Your task to perform on an android device: Empty the shopping cart on walmart.com. Add "bose soundlink" to the cart on walmart.com, then select checkout. Image 0: 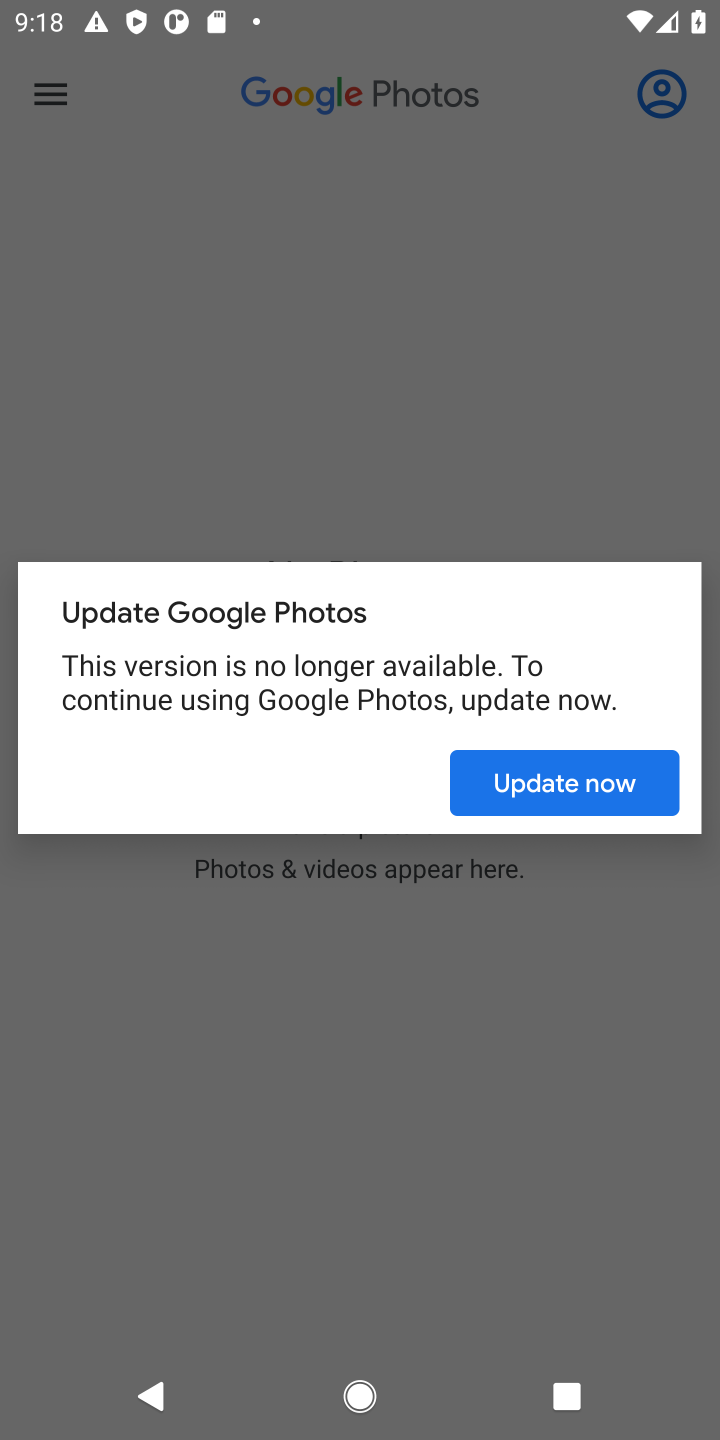
Step 0: press home button
Your task to perform on an android device: Empty the shopping cart on walmart.com. Add "bose soundlink" to the cart on walmart.com, then select checkout. Image 1: 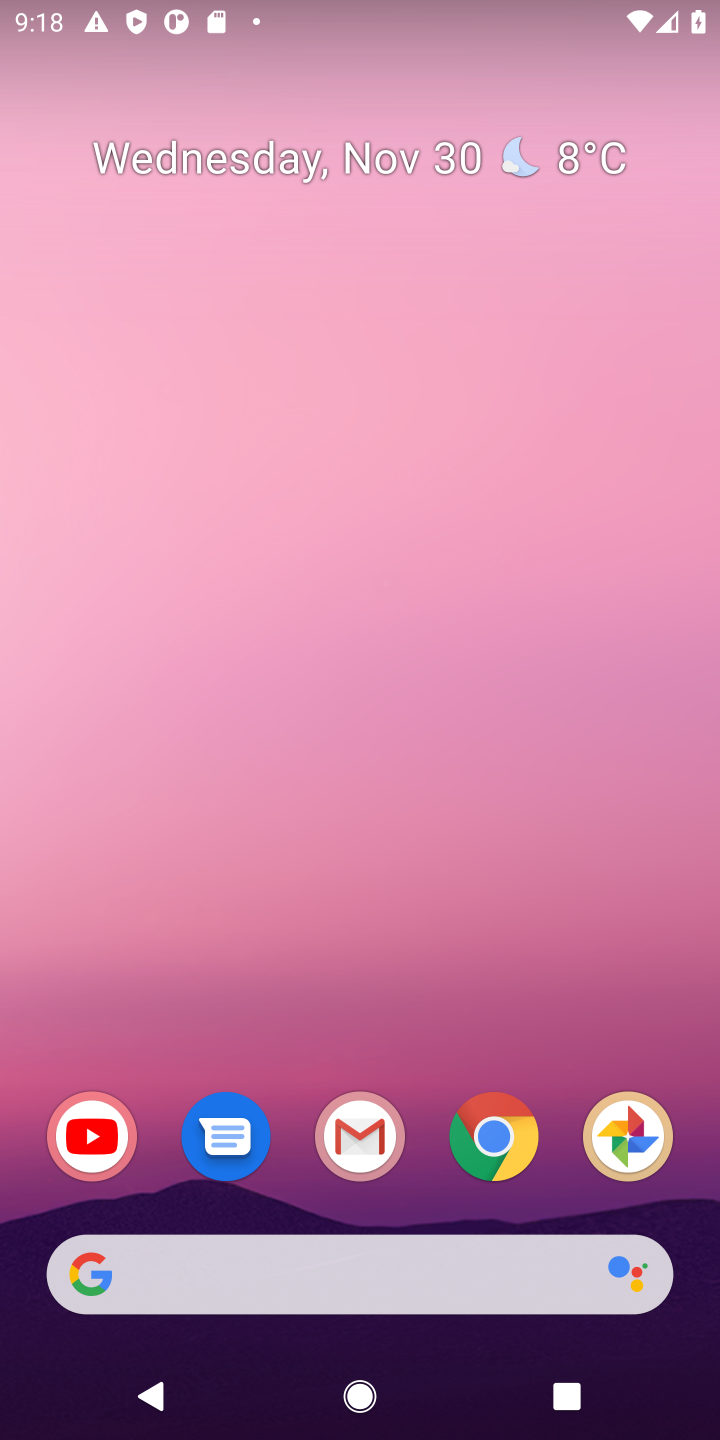
Step 1: click (512, 1127)
Your task to perform on an android device: Empty the shopping cart on walmart.com. Add "bose soundlink" to the cart on walmart.com, then select checkout. Image 2: 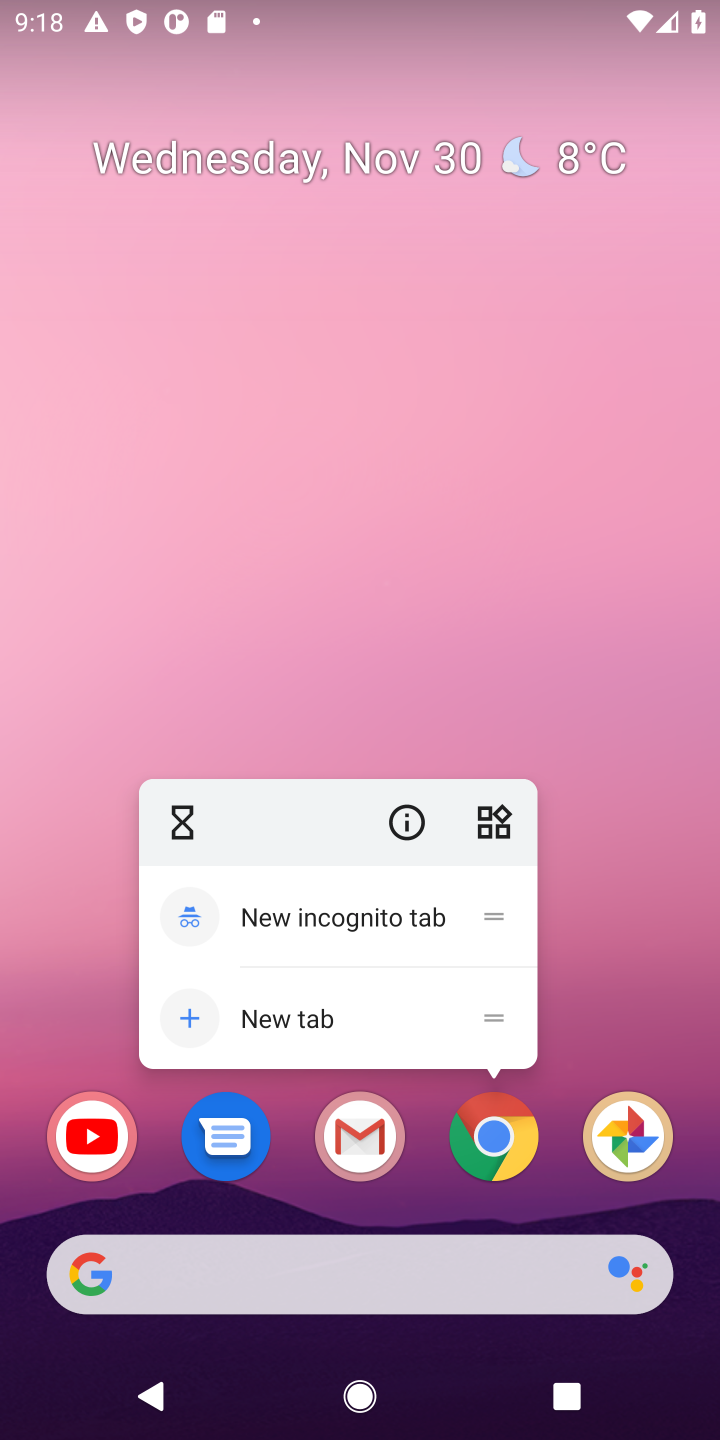
Step 2: click (499, 1140)
Your task to perform on an android device: Empty the shopping cart on walmart.com. Add "bose soundlink" to the cart on walmart.com, then select checkout. Image 3: 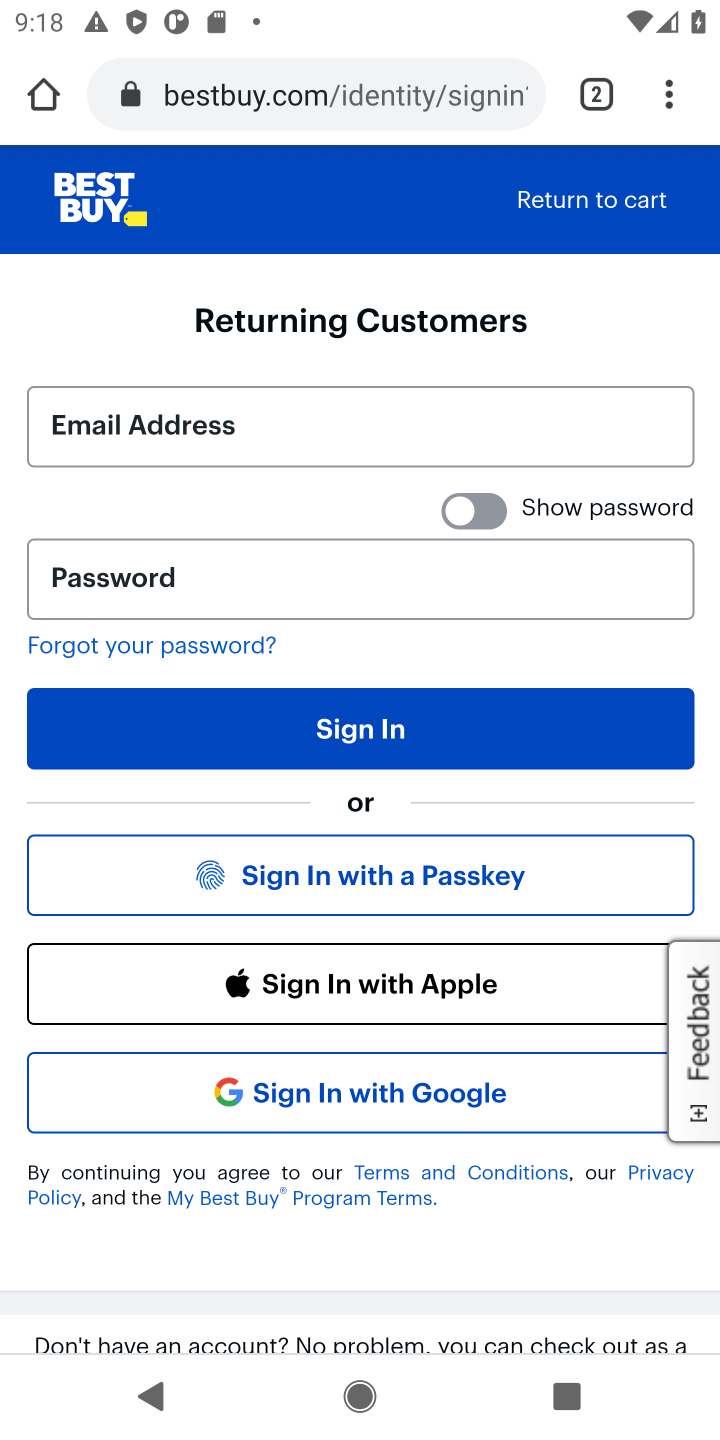
Step 3: click (272, 99)
Your task to perform on an android device: Empty the shopping cart on walmart.com. Add "bose soundlink" to the cart on walmart.com, then select checkout. Image 4: 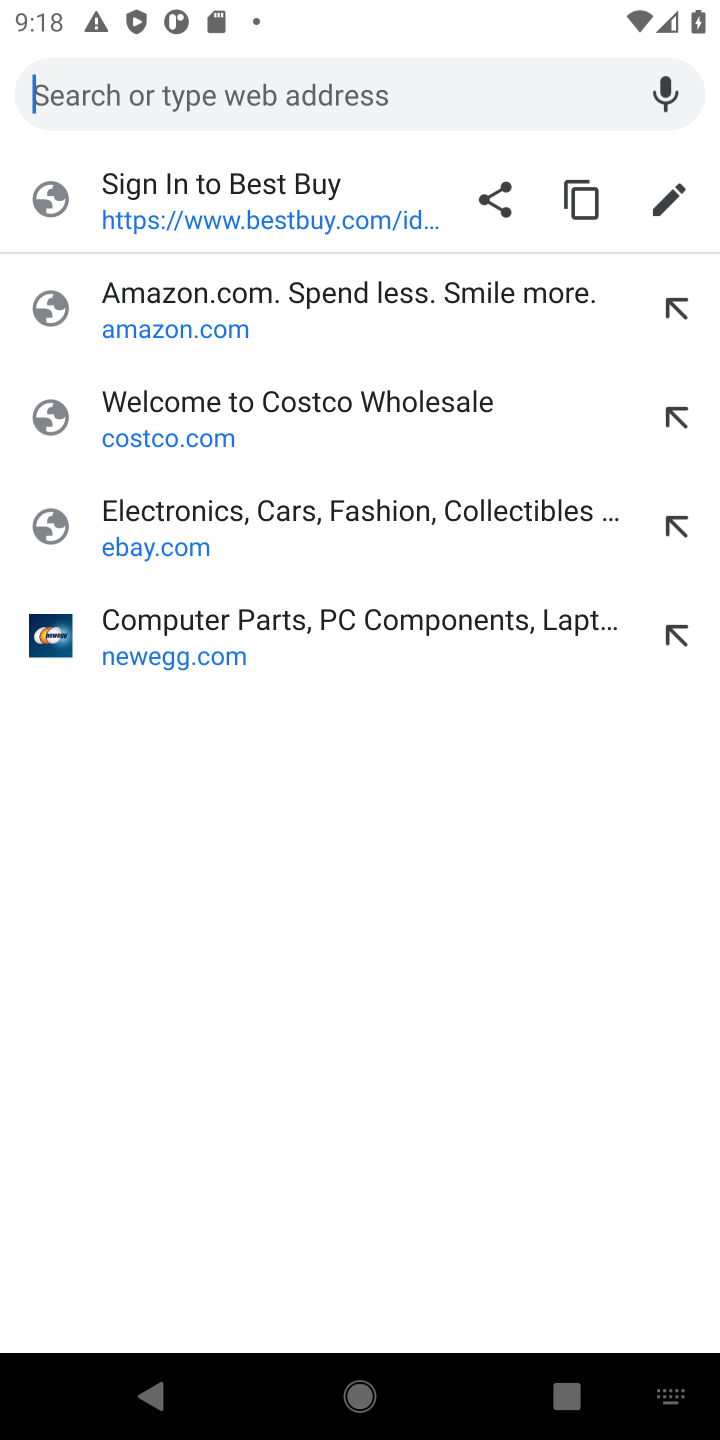
Step 4: type "walmart.com"
Your task to perform on an android device: Empty the shopping cart on walmart.com. Add "bose soundlink" to the cart on walmart.com, then select checkout. Image 5: 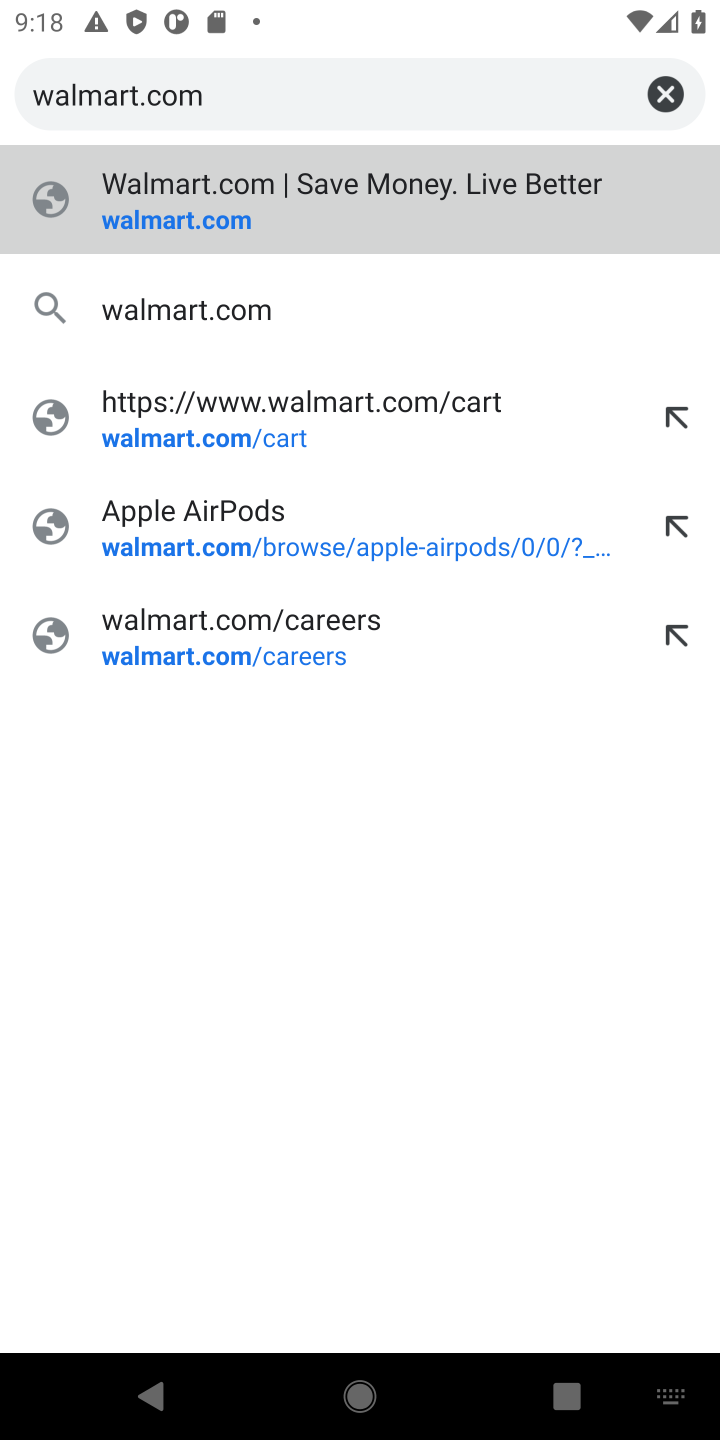
Step 5: click (166, 228)
Your task to perform on an android device: Empty the shopping cart on walmart.com. Add "bose soundlink" to the cart on walmart.com, then select checkout. Image 6: 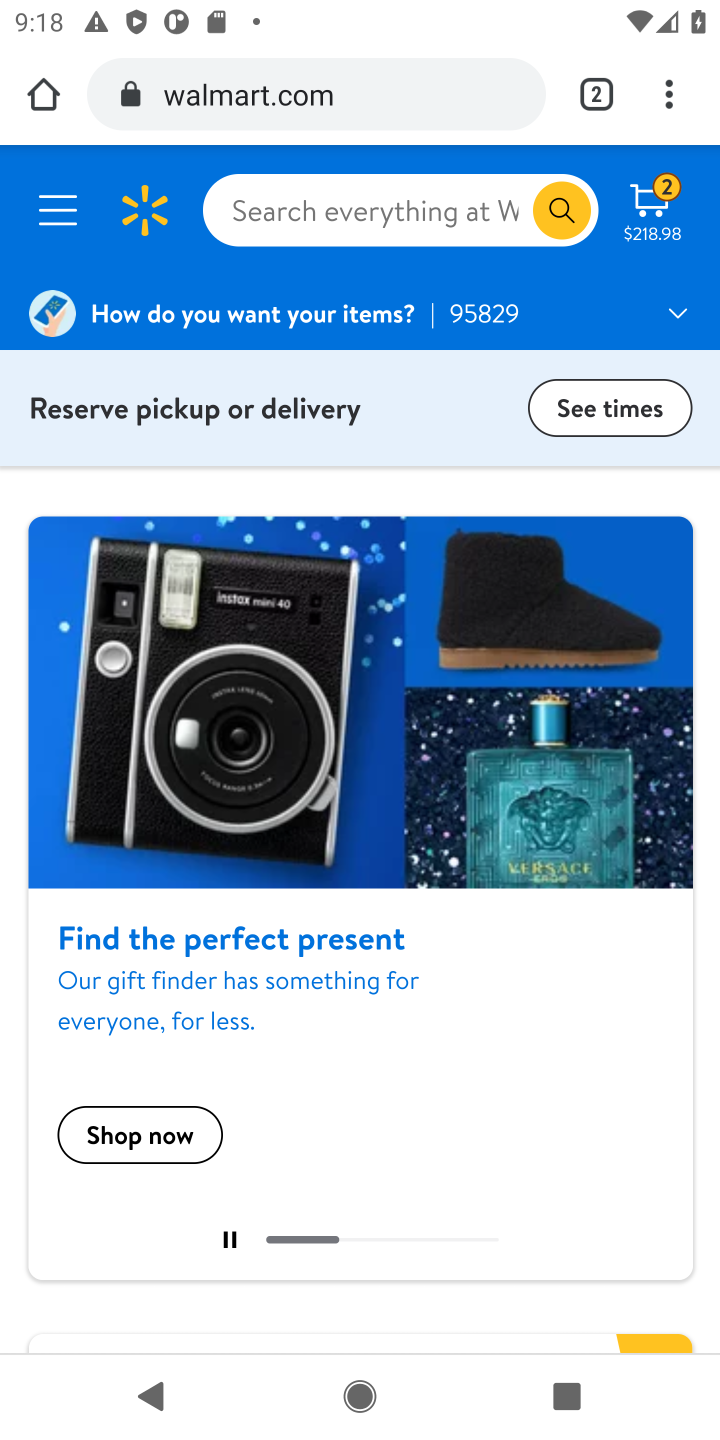
Step 6: click (633, 219)
Your task to perform on an android device: Empty the shopping cart on walmart.com. Add "bose soundlink" to the cart on walmart.com, then select checkout. Image 7: 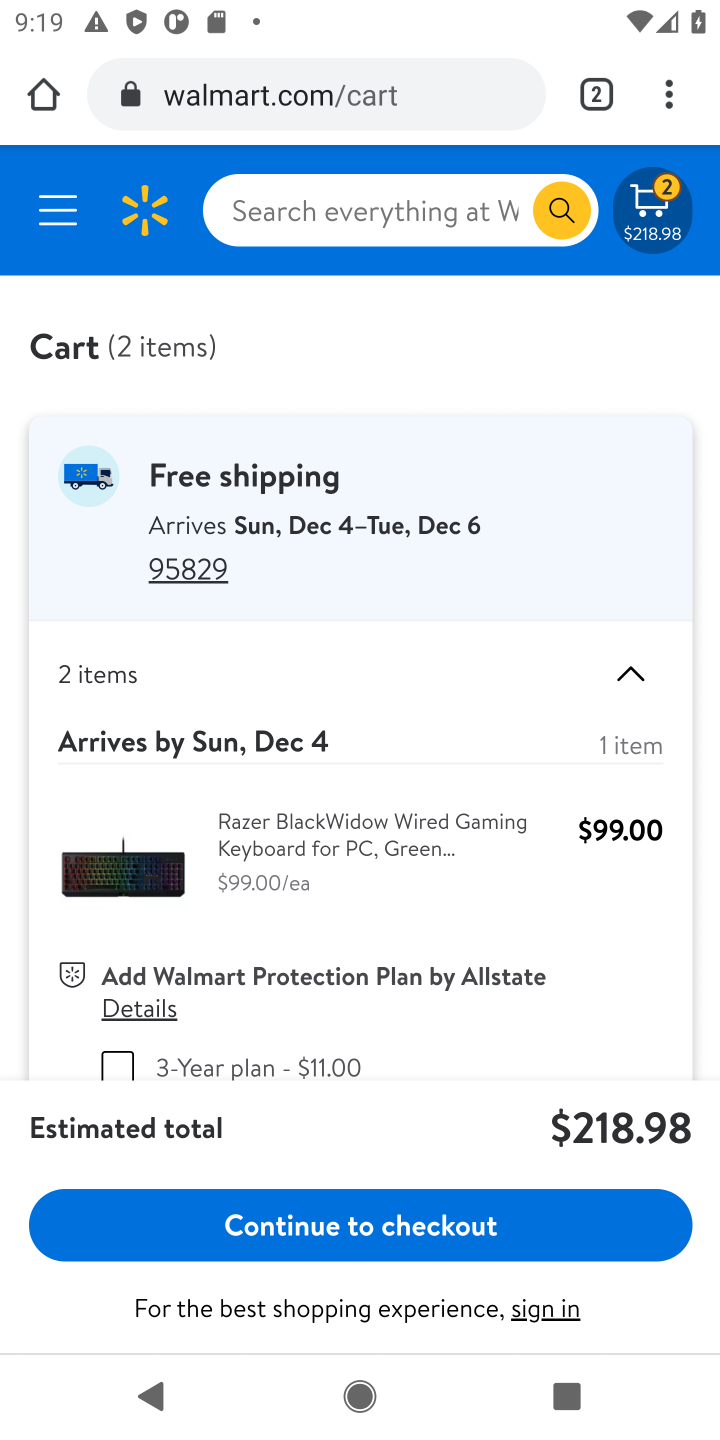
Step 7: drag from (470, 868) to (540, 409)
Your task to perform on an android device: Empty the shopping cart on walmart.com. Add "bose soundlink" to the cart on walmart.com, then select checkout. Image 8: 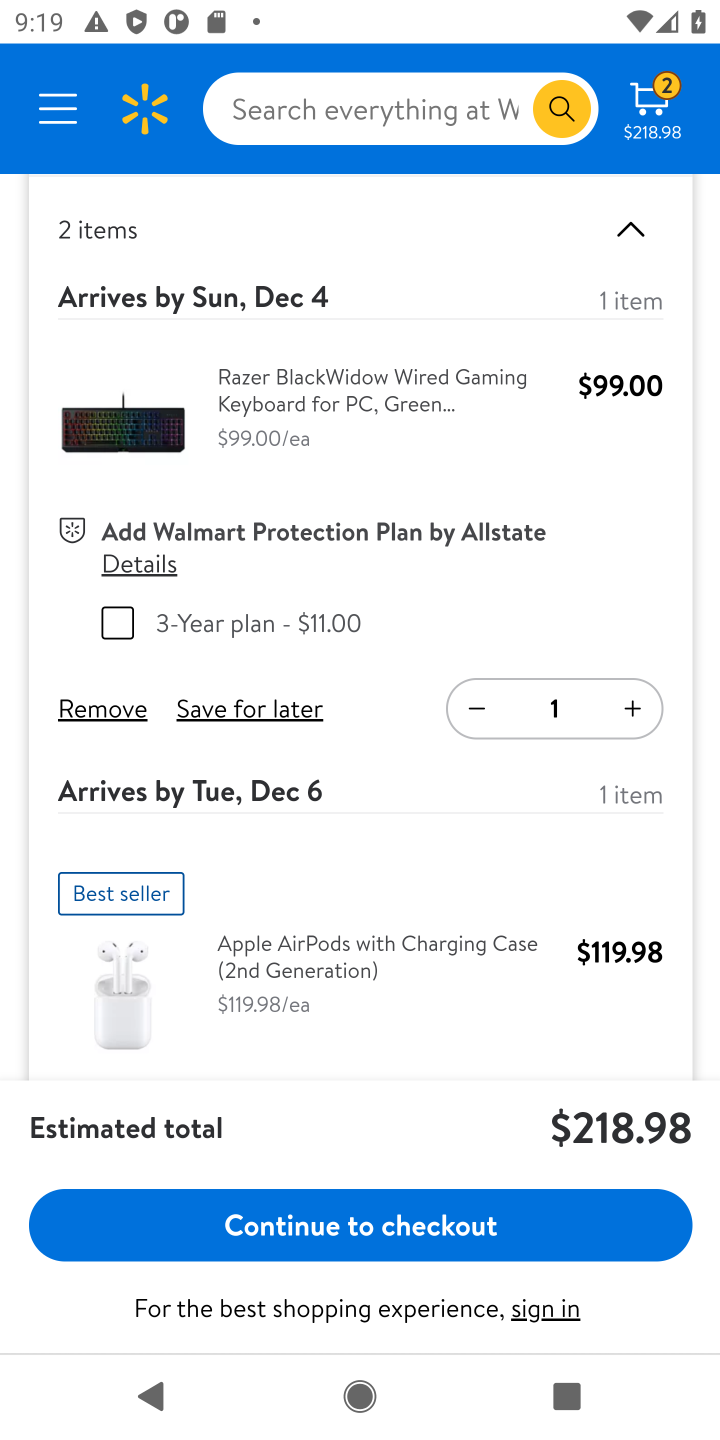
Step 8: click (75, 712)
Your task to perform on an android device: Empty the shopping cart on walmart.com. Add "bose soundlink" to the cart on walmart.com, then select checkout. Image 9: 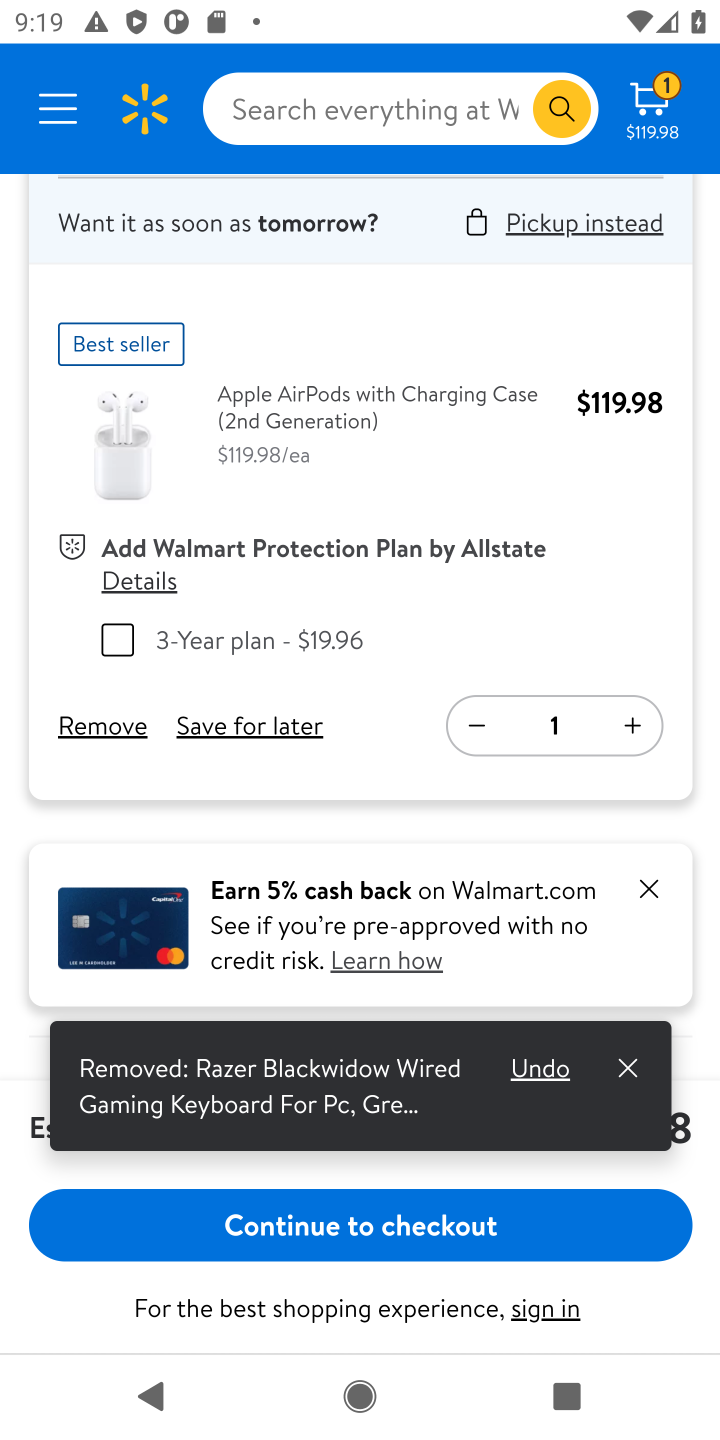
Step 9: click (75, 712)
Your task to perform on an android device: Empty the shopping cart on walmart.com. Add "bose soundlink" to the cart on walmart.com, then select checkout. Image 10: 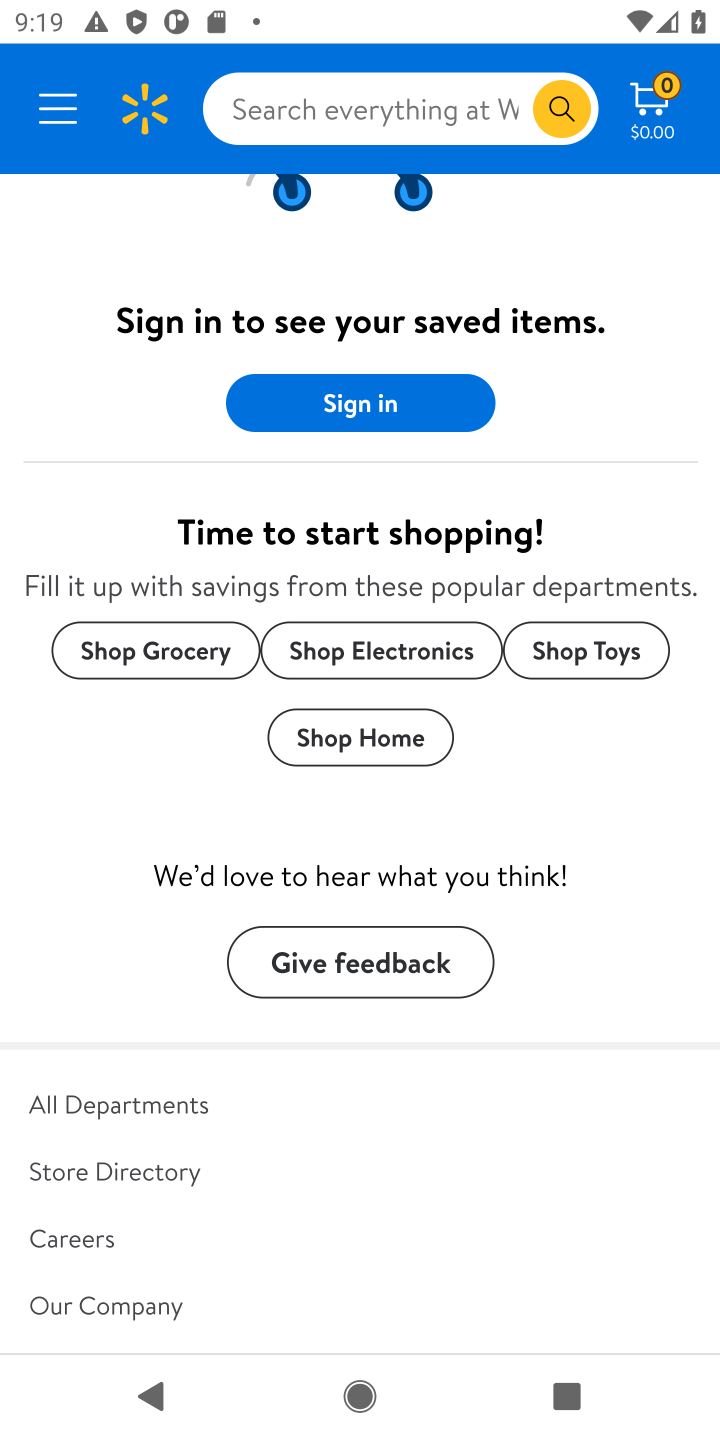
Step 10: click (308, 109)
Your task to perform on an android device: Empty the shopping cart on walmart.com. Add "bose soundlink" to the cart on walmart.com, then select checkout. Image 11: 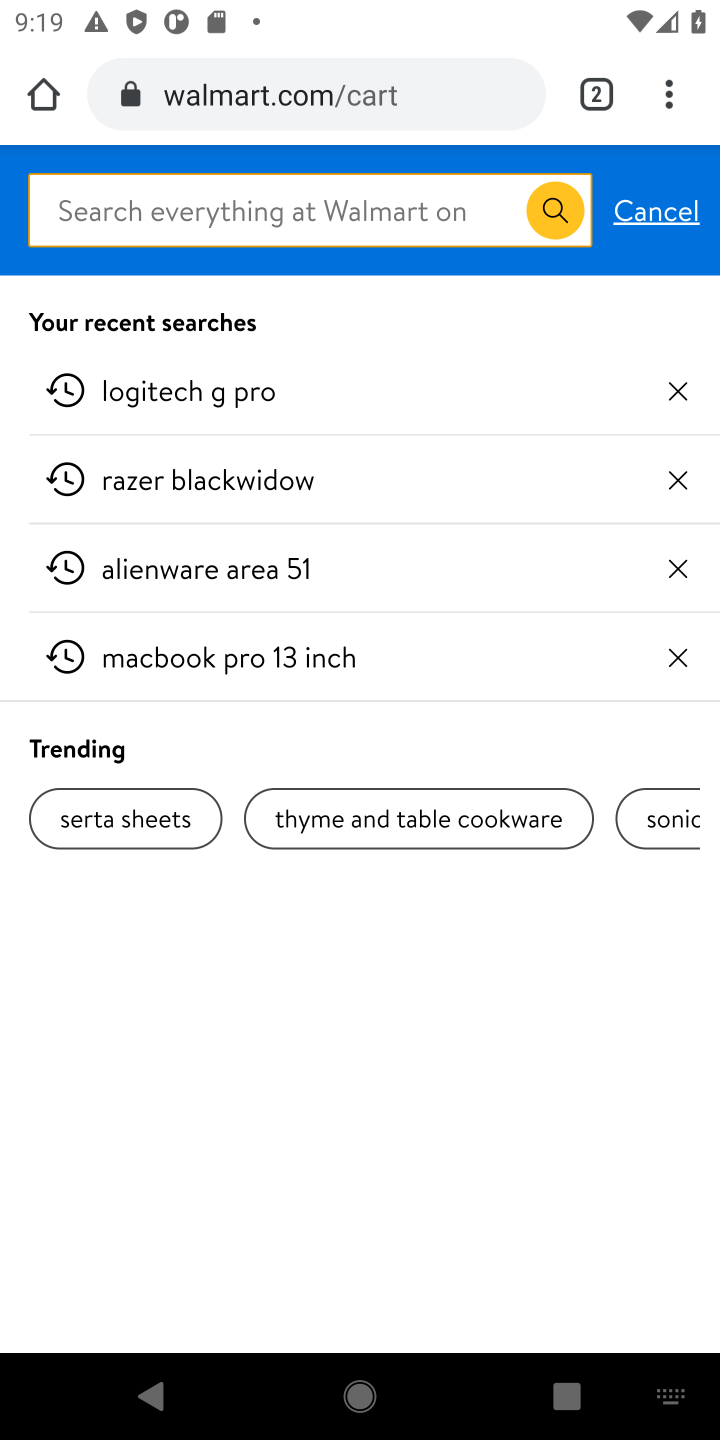
Step 11: type "bose soundlink"
Your task to perform on an android device: Empty the shopping cart on walmart.com. Add "bose soundlink" to the cart on walmart.com, then select checkout. Image 12: 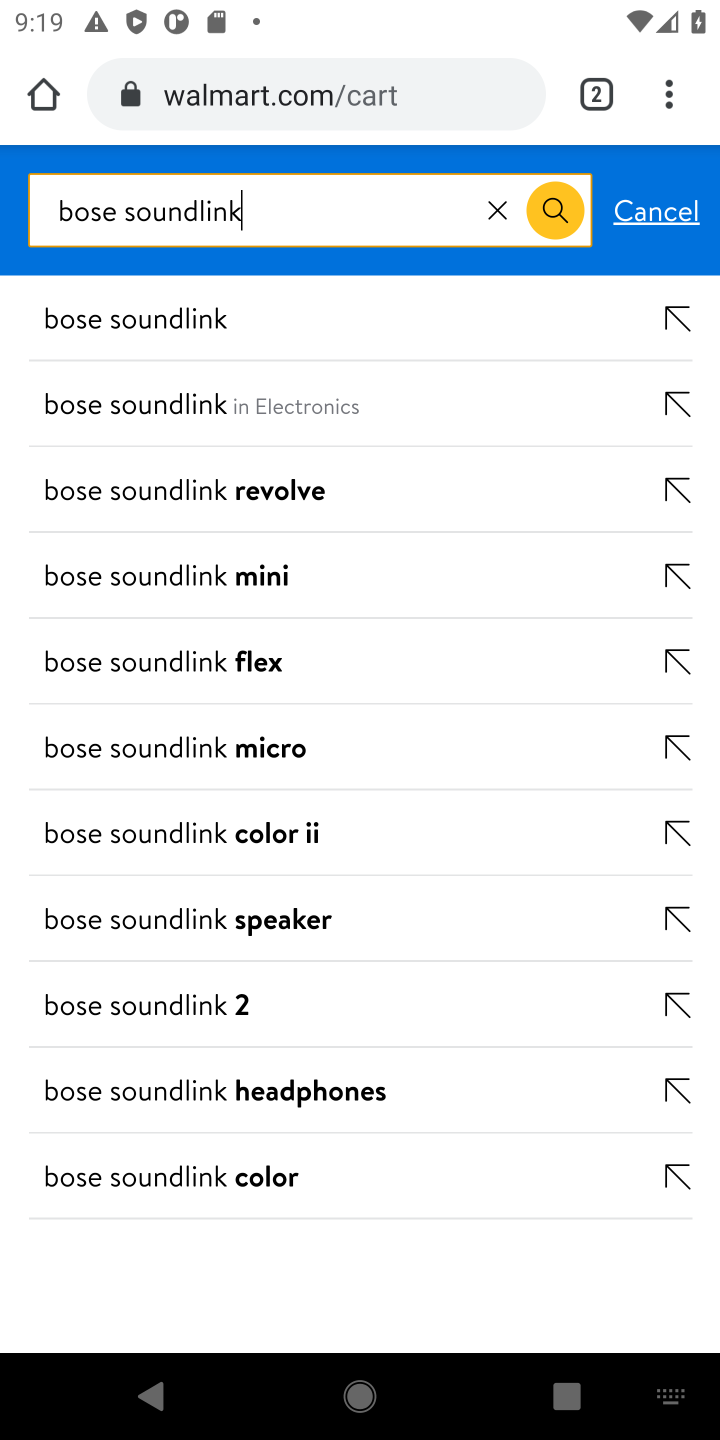
Step 12: click (167, 330)
Your task to perform on an android device: Empty the shopping cart on walmart.com. Add "bose soundlink" to the cart on walmart.com, then select checkout. Image 13: 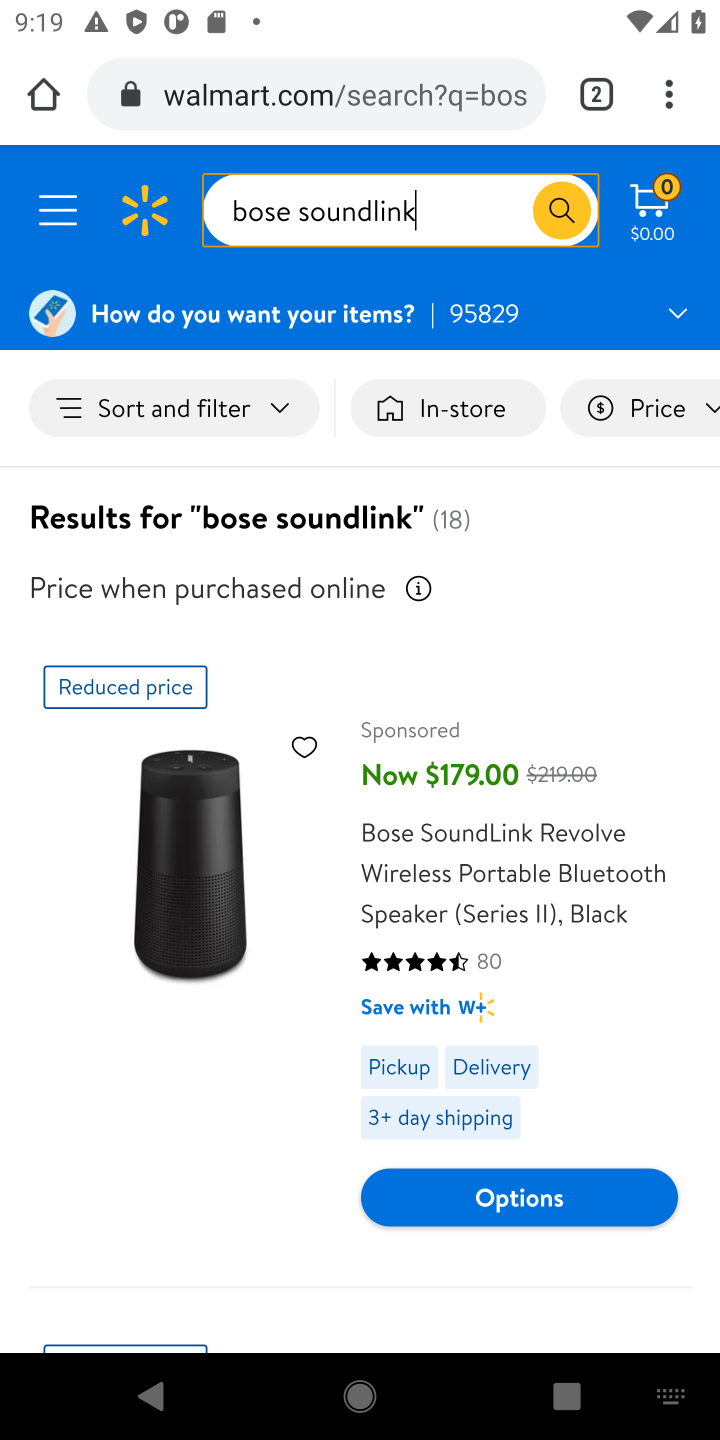
Step 13: click (454, 893)
Your task to perform on an android device: Empty the shopping cart on walmart.com. Add "bose soundlink" to the cart on walmart.com, then select checkout. Image 14: 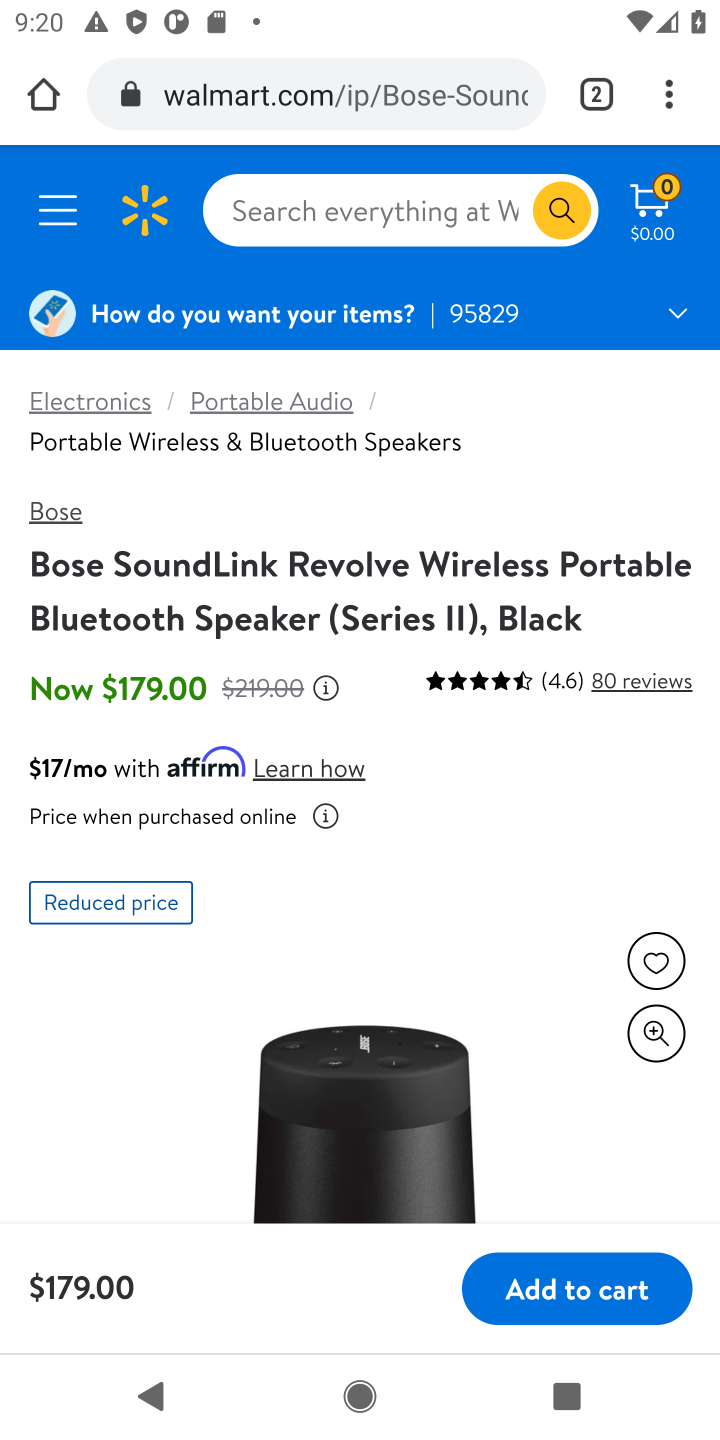
Step 14: click (593, 1296)
Your task to perform on an android device: Empty the shopping cart on walmart.com. Add "bose soundlink" to the cart on walmart.com, then select checkout. Image 15: 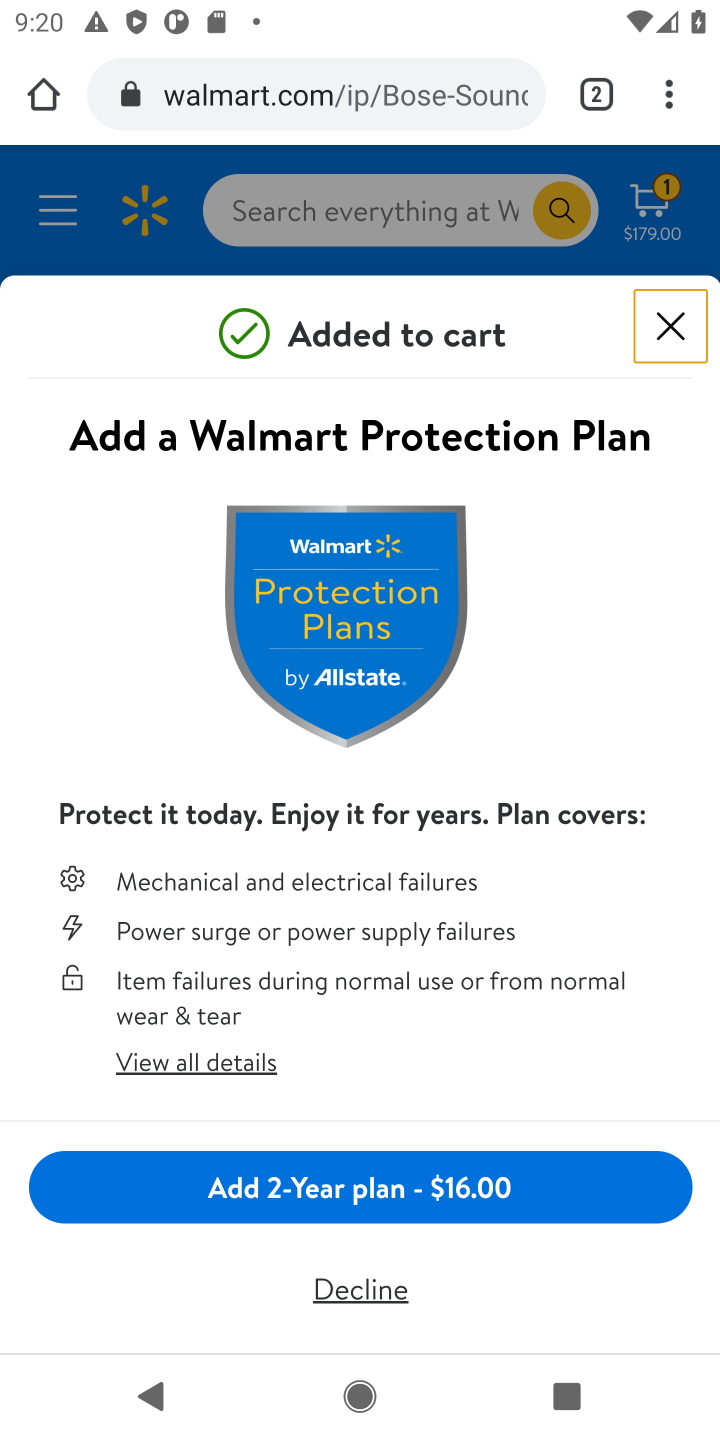
Step 15: click (680, 328)
Your task to perform on an android device: Empty the shopping cart on walmart.com. Add "bose soundlink" to the cart on walmart.com, then select checkout. Image 16: 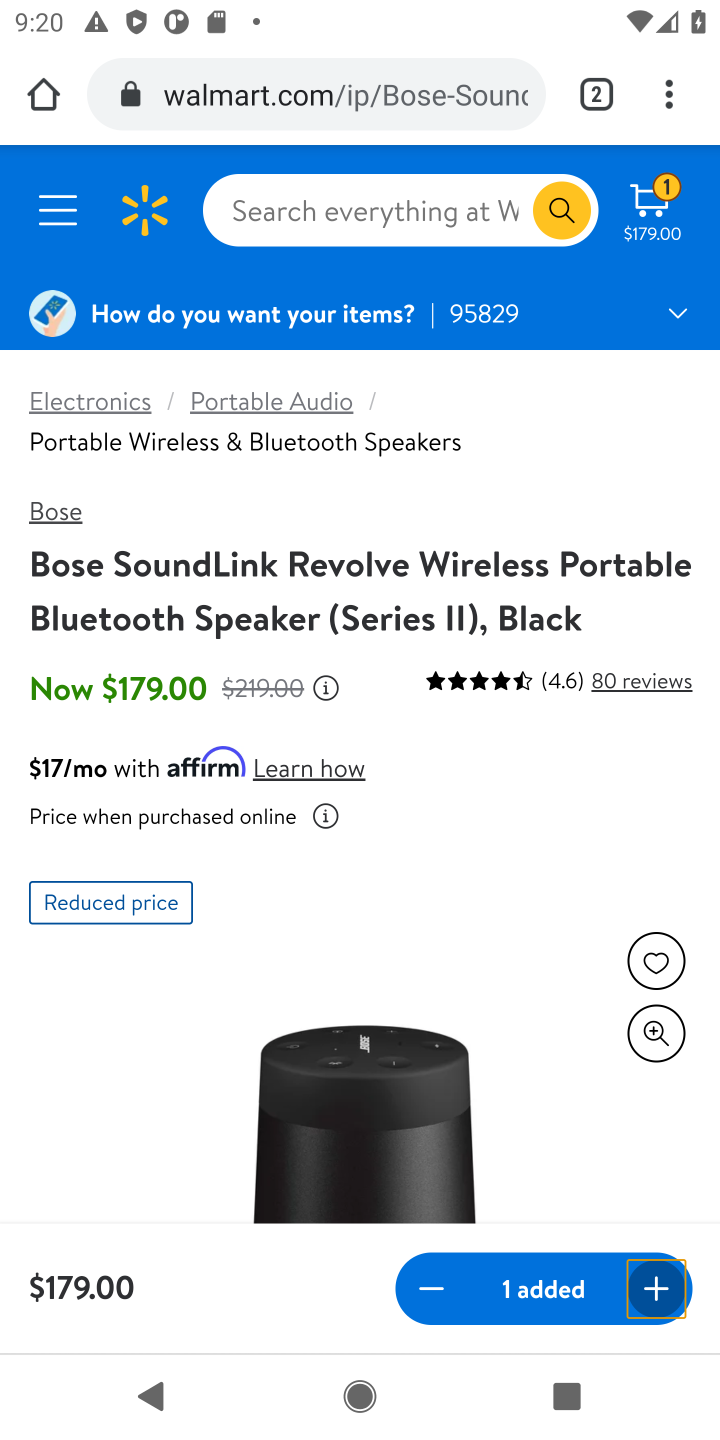
Step 16: click (649, 221)
Your task to perform on an android device: Empty the shopping cart on walmart.com. Add "bose soundlink" to the cart on walmart.com, then select checkout. Image 17: 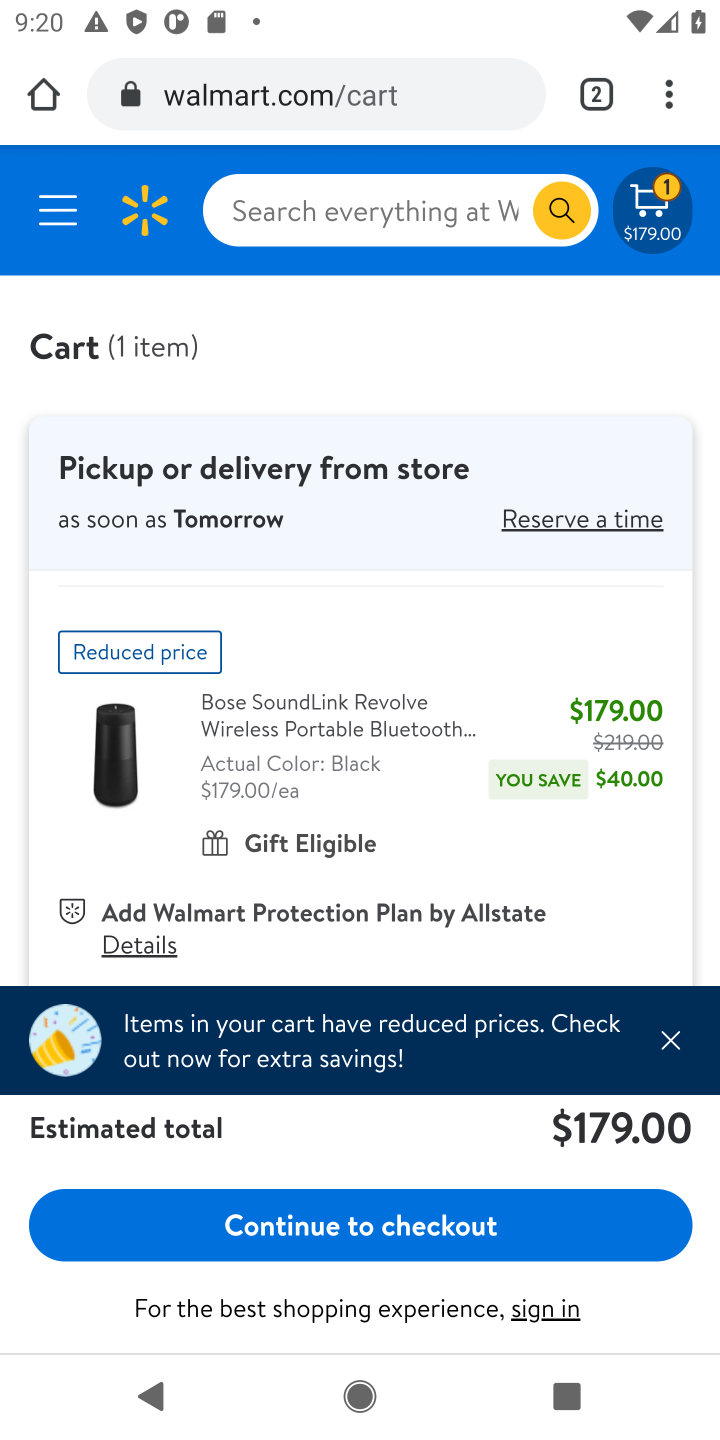
Step 17: click (437, 1241)
Your task to perform on an android device: Empty the shopping cart on walmart.com. Add "bose soundlink" to the cart on walmart.com, then select checkout. Image 18: 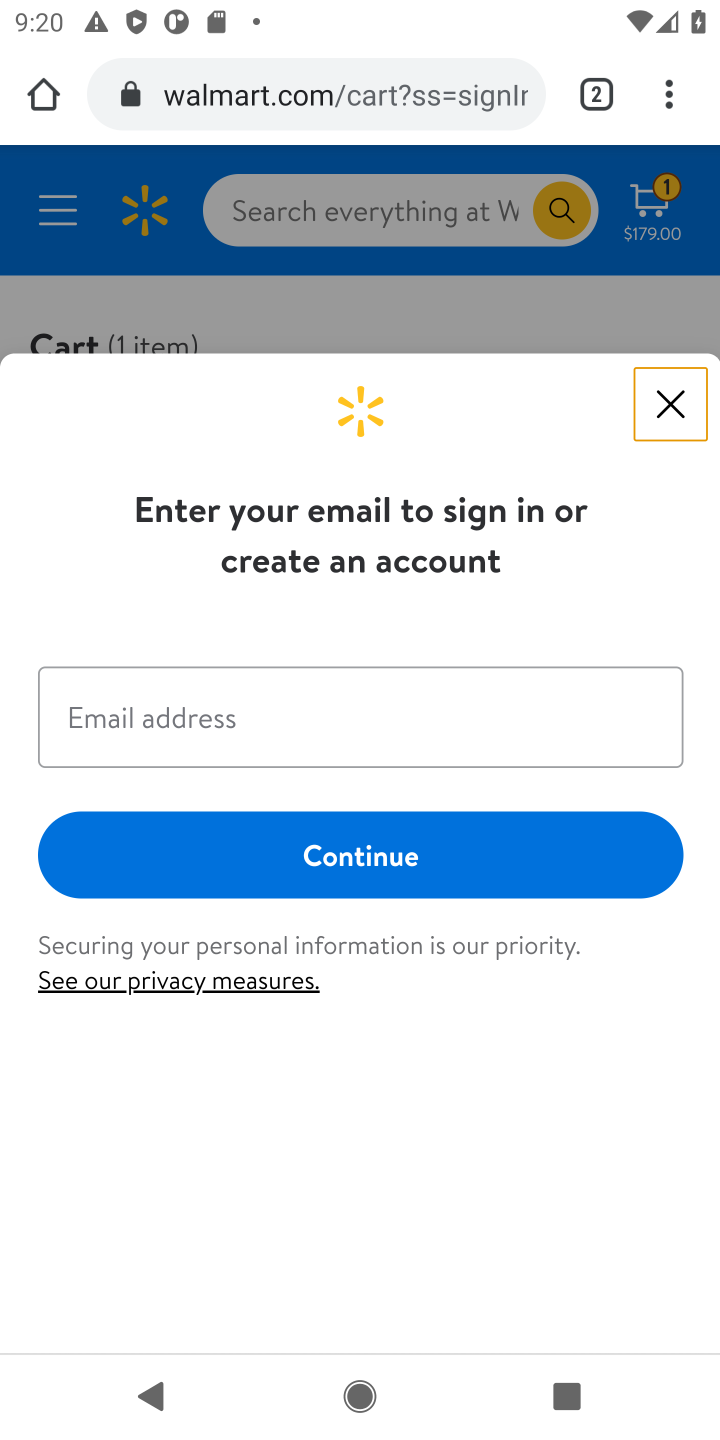
Step 18: task complete